Your task to perform on an android device: toggle translation in the chrome app Image 0: 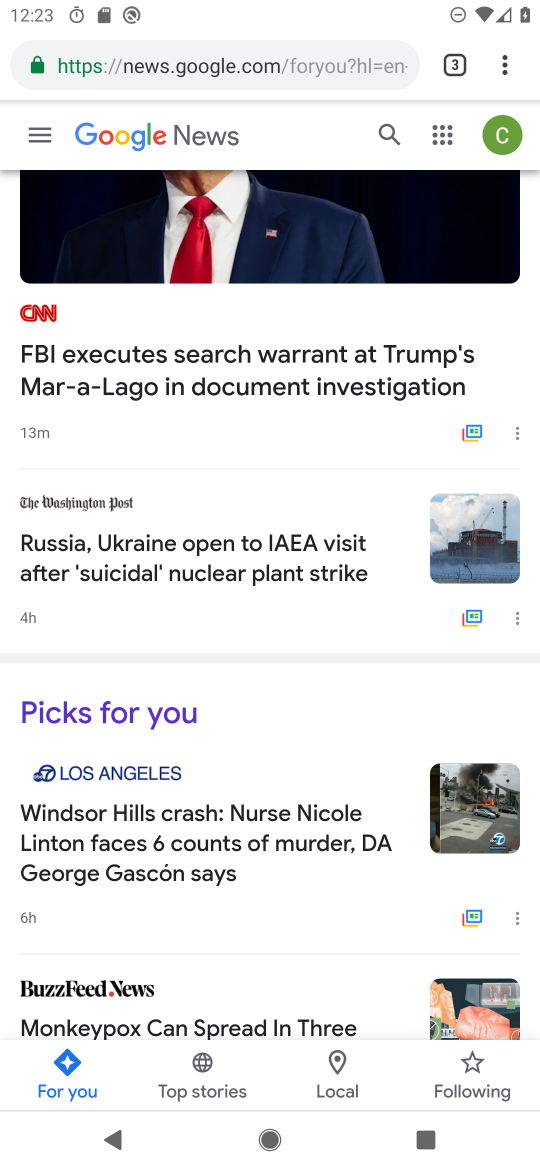
Step 0: press home button
Your task to perform on an android device: toggle translation in the chrome app Image 1: 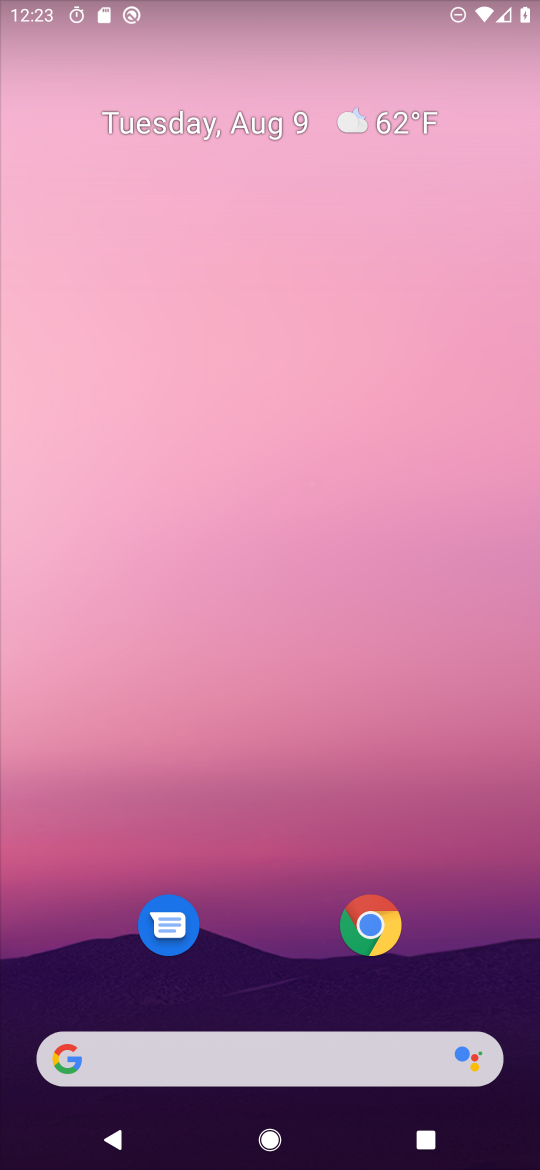
Step 1: drag from (351, 830) to (404, 224)
Your task to perform on an android device: toggle translation in the chrome app Image 2: 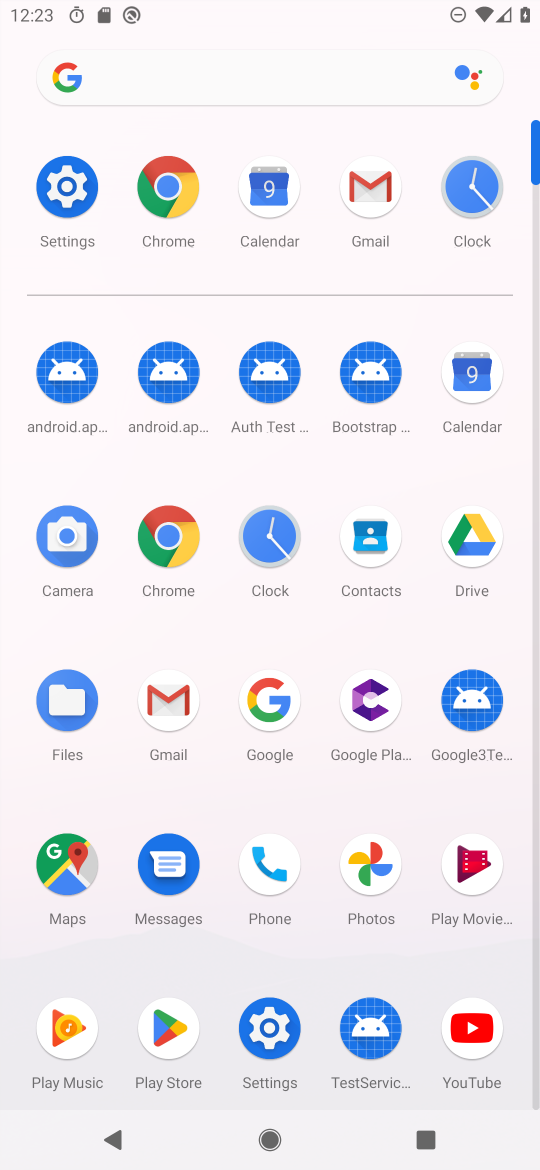
Step 2: click (166, 544)
Your task to perform on an android device: toggle translation in the chrome app Image 3: 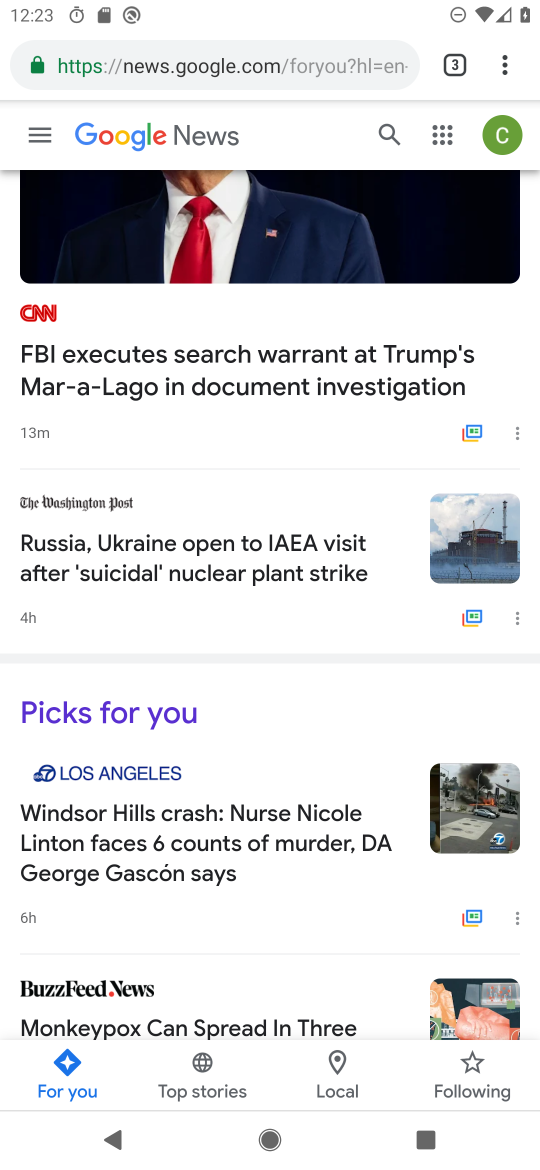
Step 3: click (510, 52)
Your task to perform on an android device: toggle translation in the chrome app Image 4: 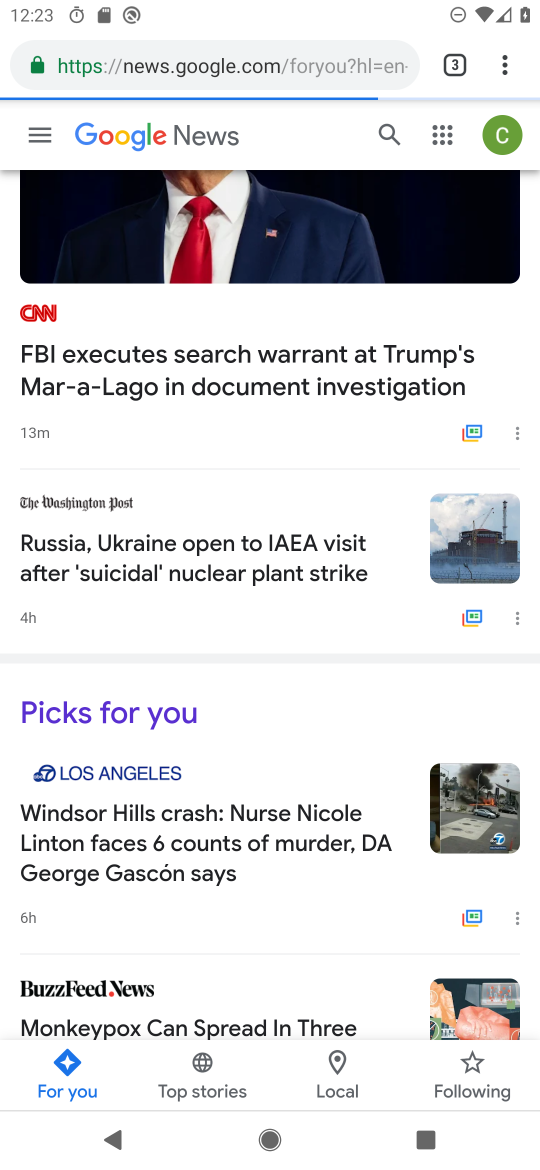
Step 4: drag from (510, 52) to (308, 843)
Your task to perform on an android device: toggle translation in the chrome app Image 5: 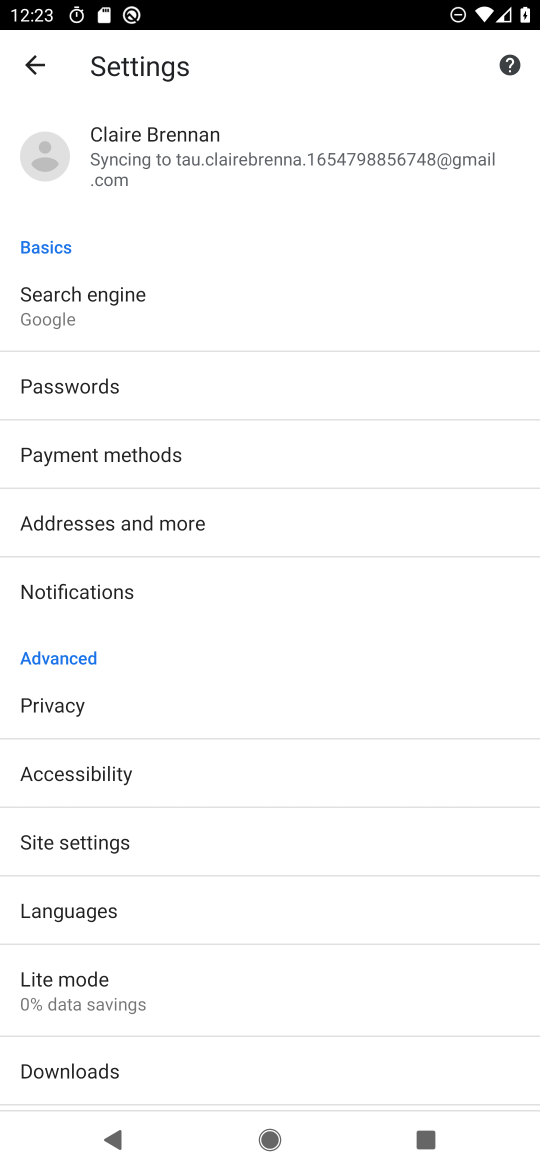
Step 5: click (130, 923)
Your task to perform on an android device: toggle translation in the chrome app Image 6: 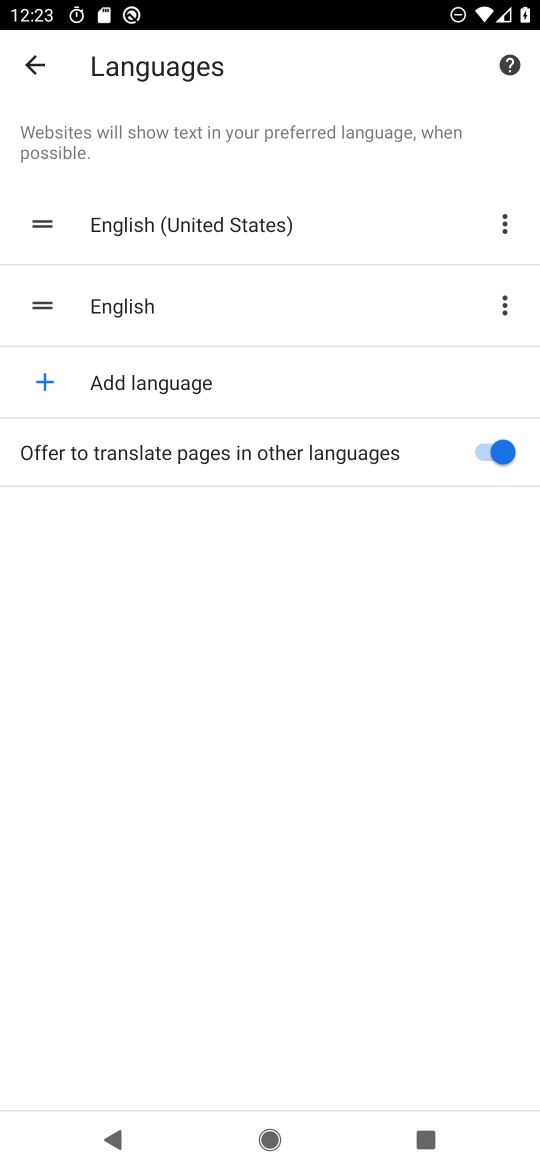
Step 6: click (468, 444)
Your task to perform on an android device: toggle translation in the chrome app Image 7: 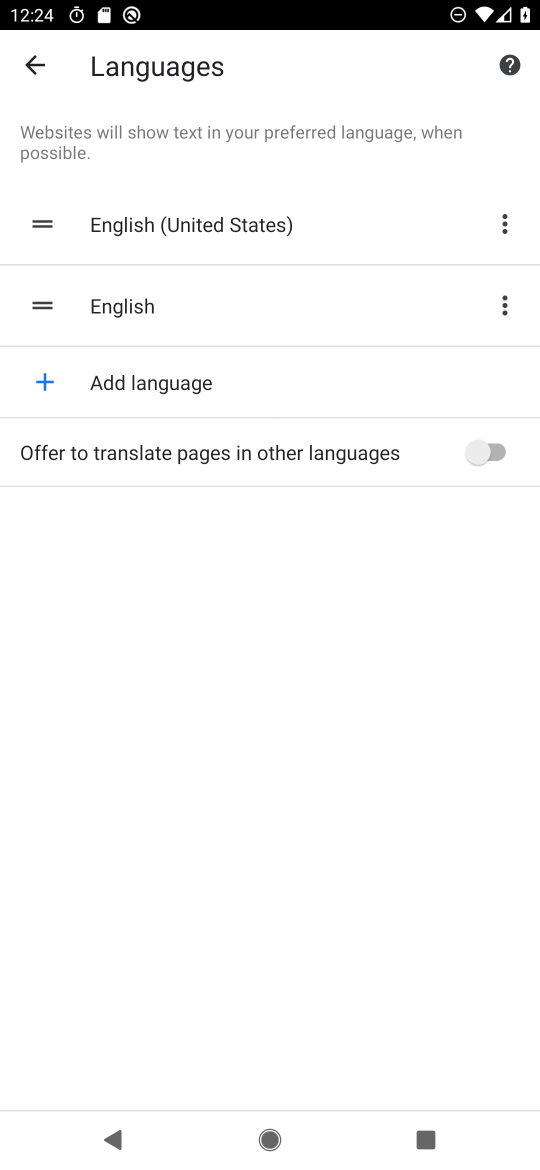
Step 7: task complete